Your task to perform on an android device: check data usage Image 0: 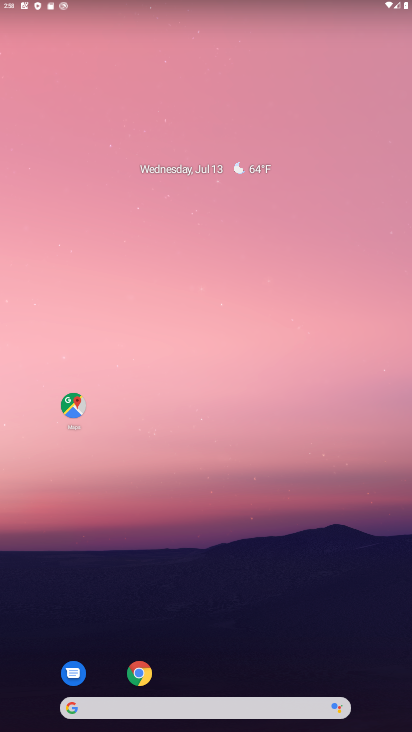
Step 0: drag from (316, 614) to (331, 6)
Your task to perform on an android device: check data usage Image 1: 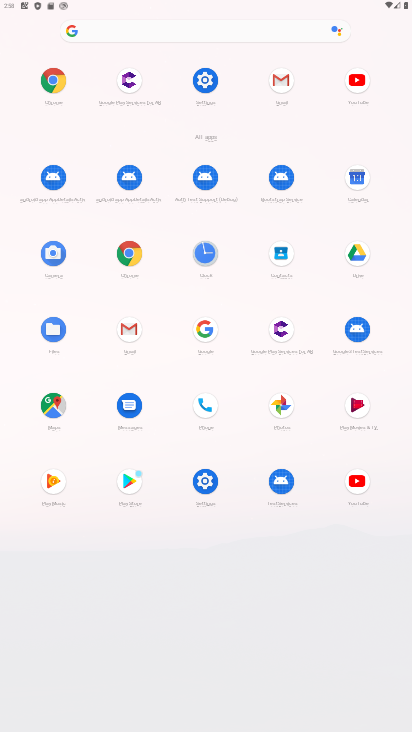
Step 1: drag from (275, 0) to (275, 493)
Your task to perform on an android device: check data usage Image 2: 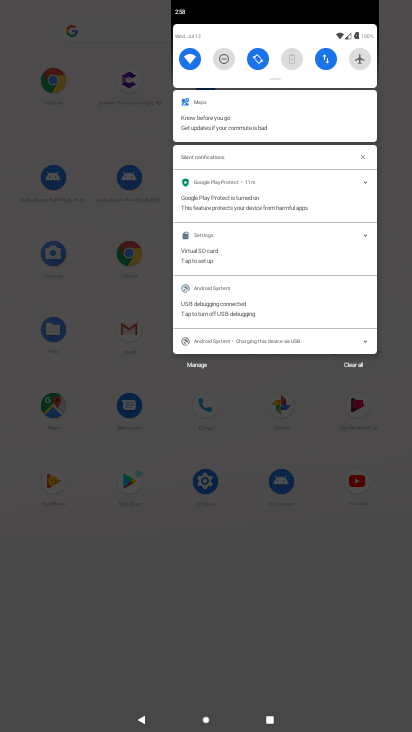
Step 2: click (323, 56)
Your task to perform on an android device: check data usage Image 3: 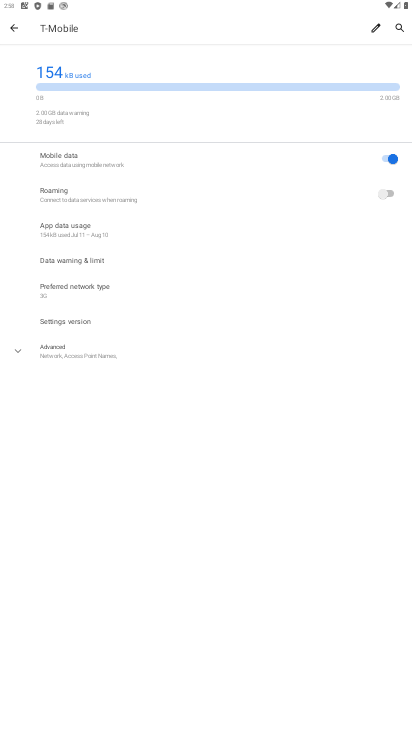
Step 3: task complete